Your task to perform on an android device: open chrome privacy settings Image 0: 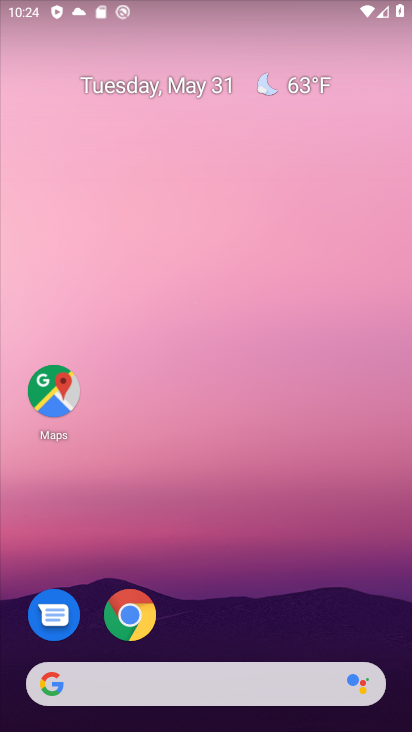
Step 0: drag from (357, 592) to (291, 280)
Your task to perform on an android device: open chrome privacy settings Image 1: 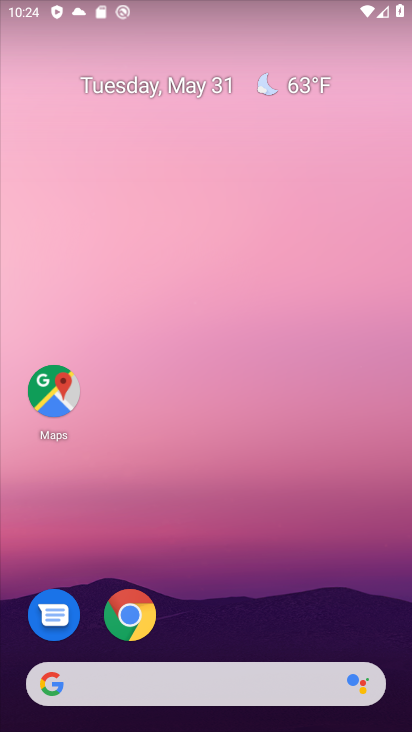
Step 1: drag from (364, 625) to (338, 420)
Your task to perform on an android device: open chrome privacy settings Image 2: 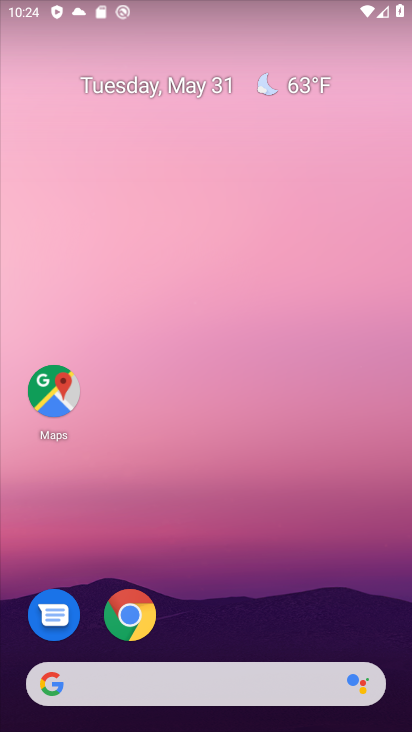
Step 2: drag from (339, 606) to (310, 230)
Your task to perform on an android device: open chrome privacy settings Image 3: 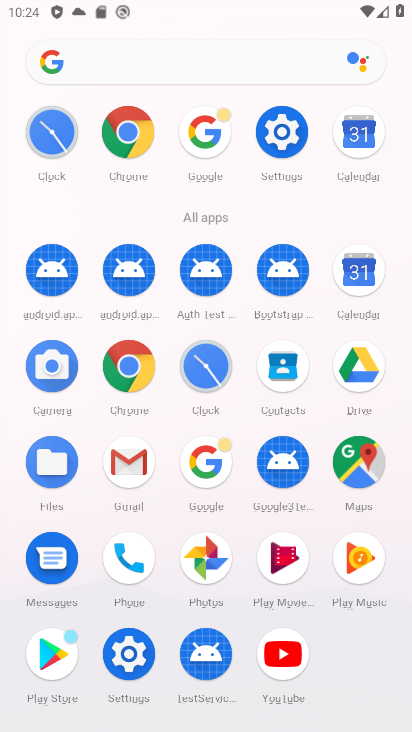
Step 3: click (125, 392)
Your task to perform on an android device: open chrome privacy settings Image 4: 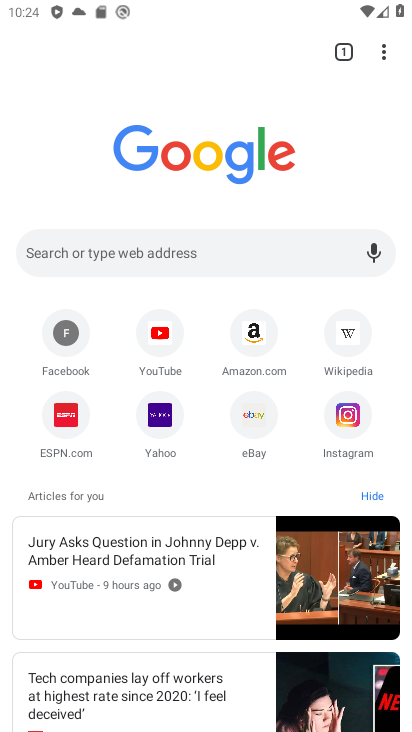
Step 4: drag from (384, 68) to (223, 442)
Your task to perform on an android device: open chrome privacy settings Image 5: 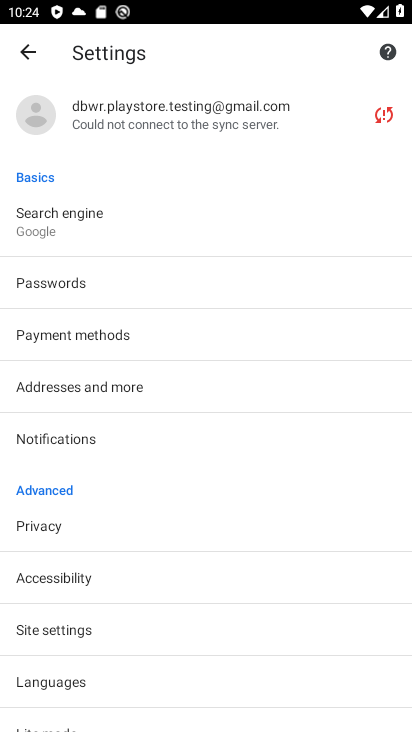
Step 5: drag from (258, 655) to (245, 364)
Your task to perform on an android device: open chrome privacy settings Image 6: 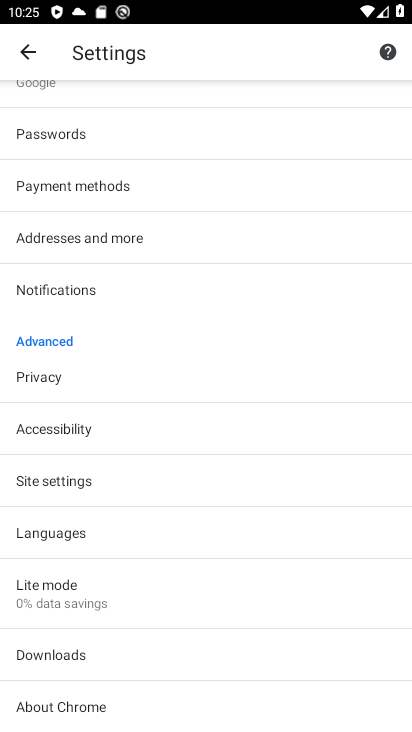
Step 6: click (41, 382)
Your task to perform on an android device: open chrome privacy settings Image 7: 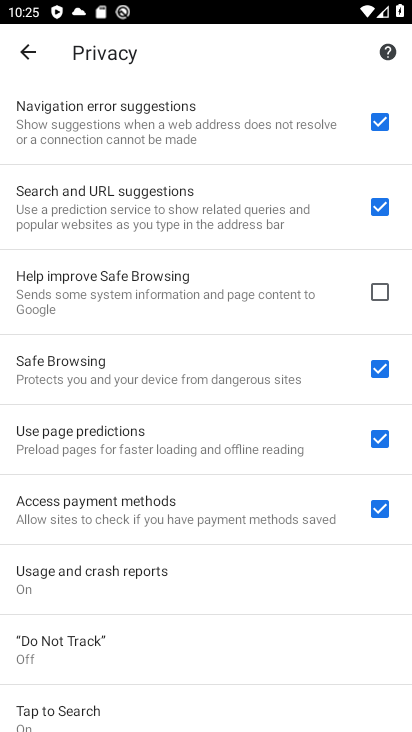
Step 7: task complete